Your task to perform on an android device: Go to internet settings Image 0: 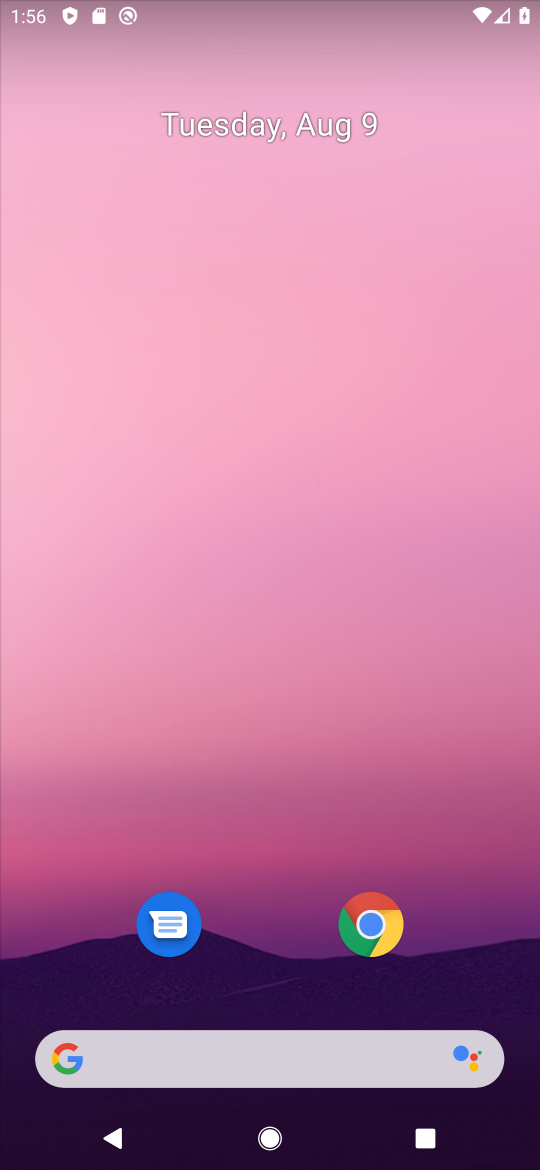
Step 0: drag from (496, 1101) to (329, 168)
Your task to perform on an android device: Go to internet settings Image 1: 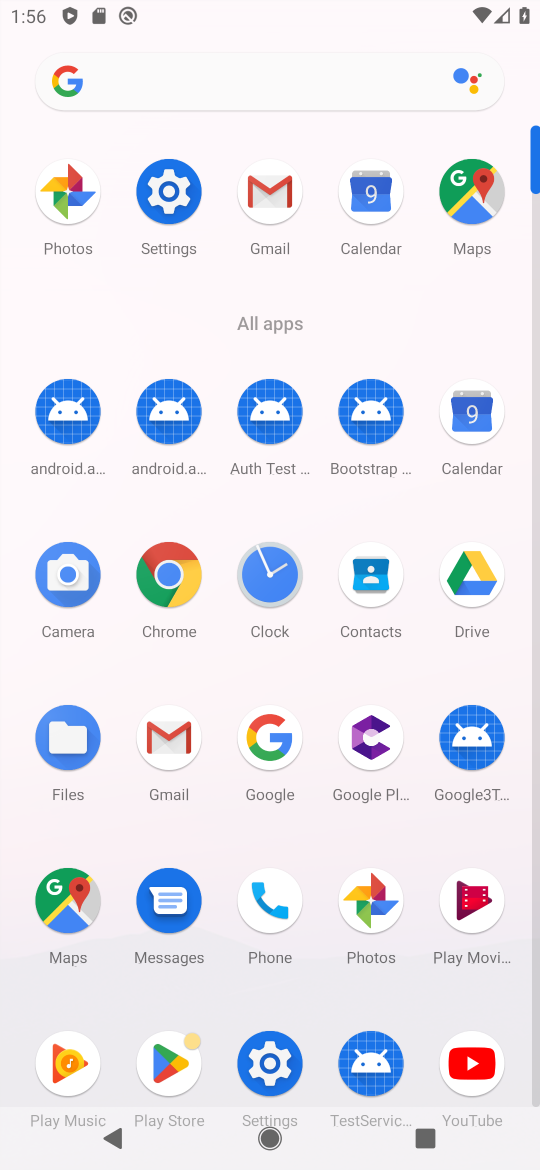
Step 1: click (287, 1068)
Your task to perform on an android device: Go to internet settings Image 2: 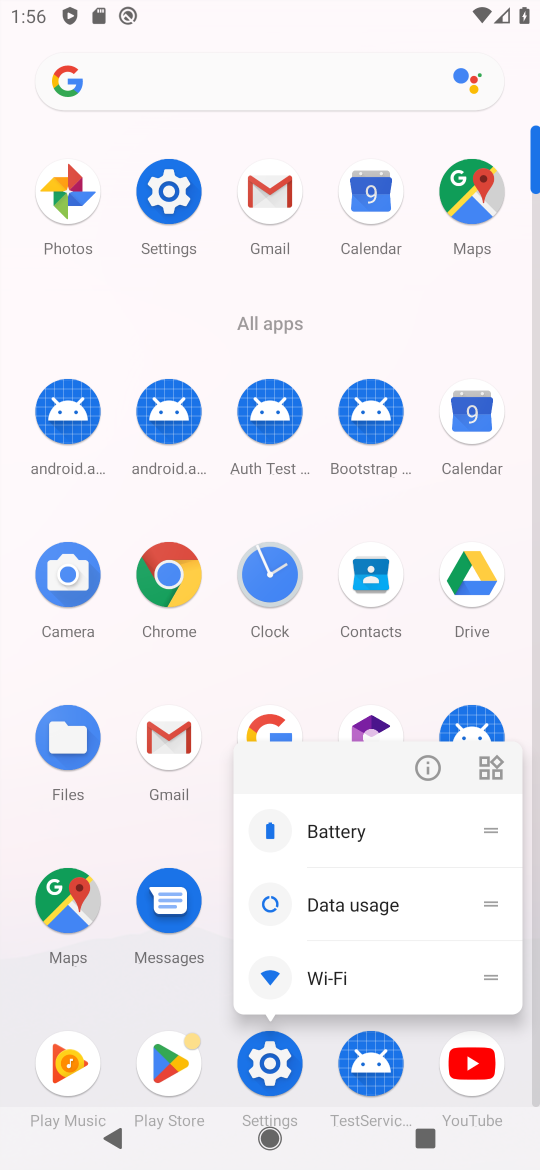
Step 2: click (167, 213)
Your task to perform on an android device: Go to internet settings Image 3: 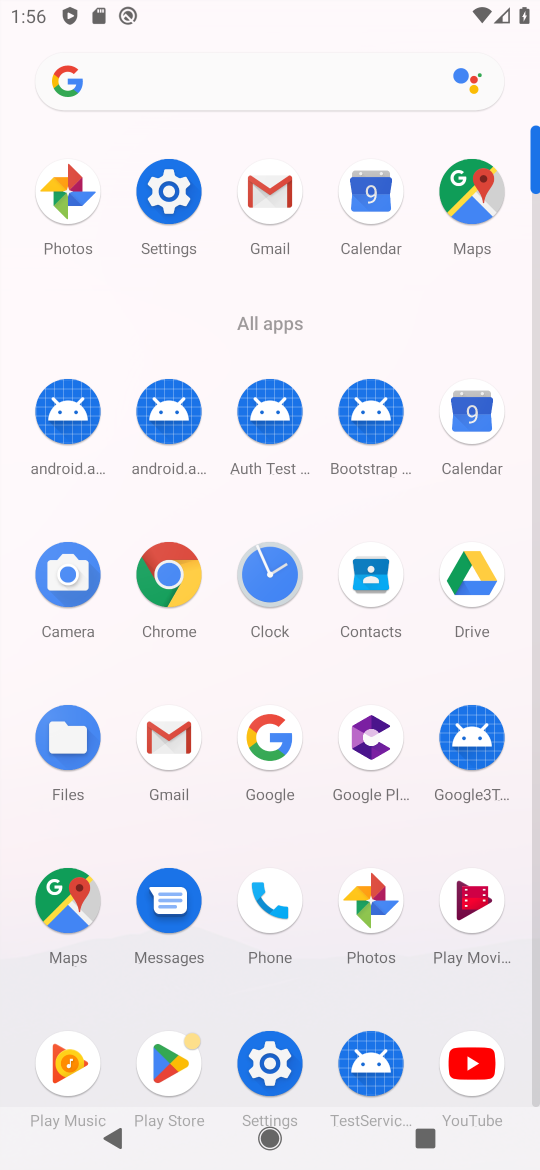
Step 3: click (165, 200)
Your task to perform on an android device: Go to internet settings Image 4: 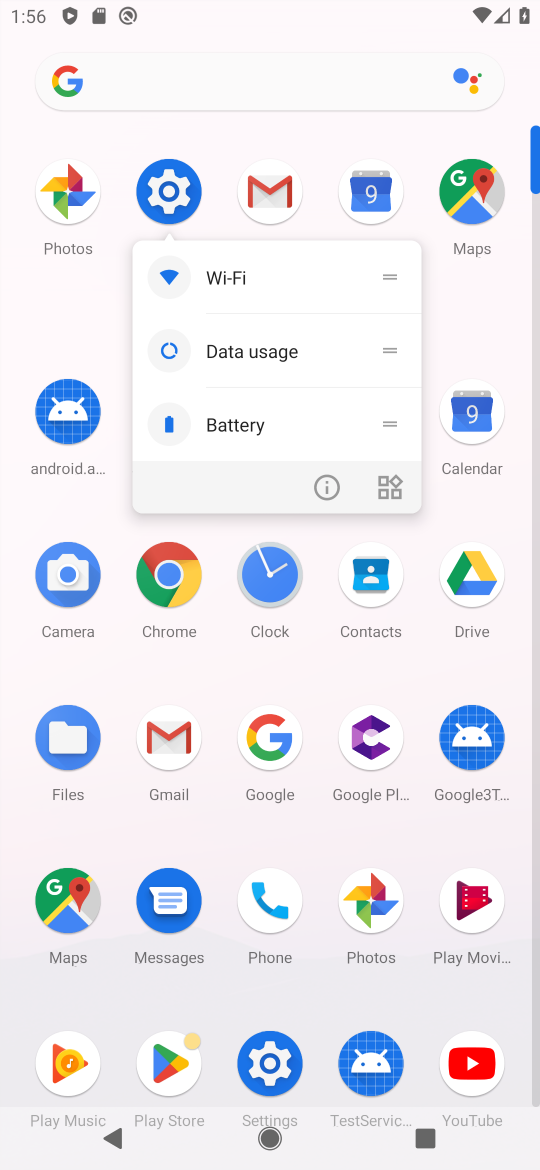
Step 4: click (160, 203)
Your task to perform on an android device: Go to internet settings Image 5: 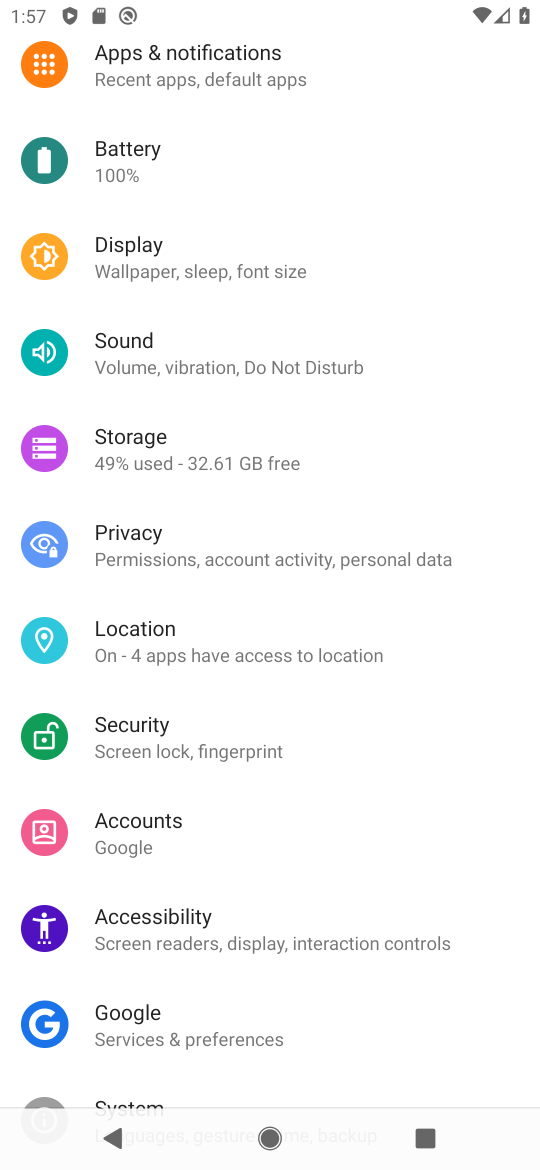
Step 5: drag from (287, 169) to (285, 971)
Your task to perform on an android device: Go to internet settings Image 6: 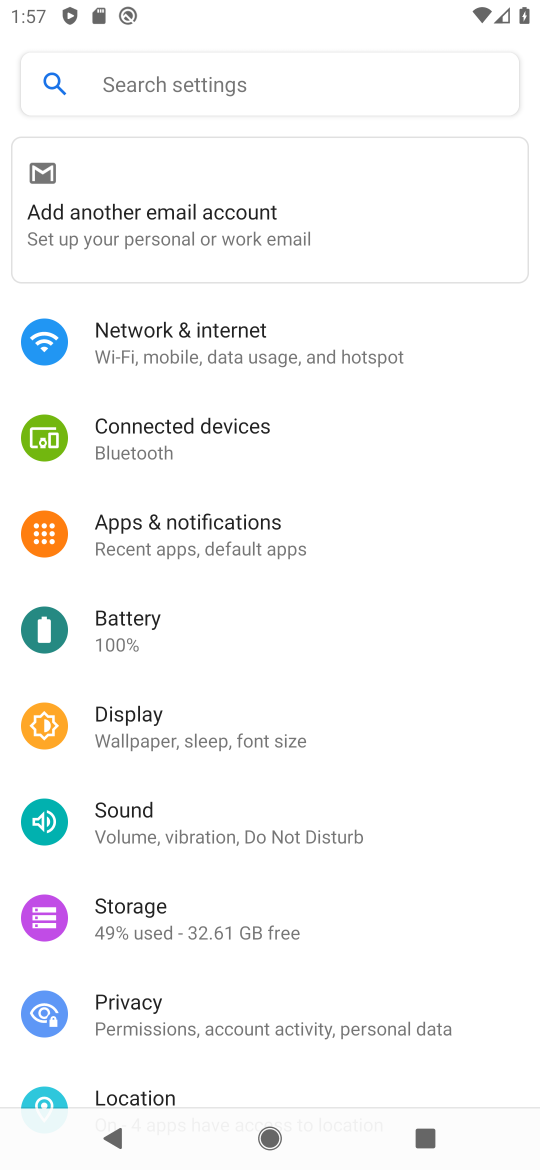
Step 6: click (170, 319)
Your task to perform on an android device: Go to internet settings Image 7: 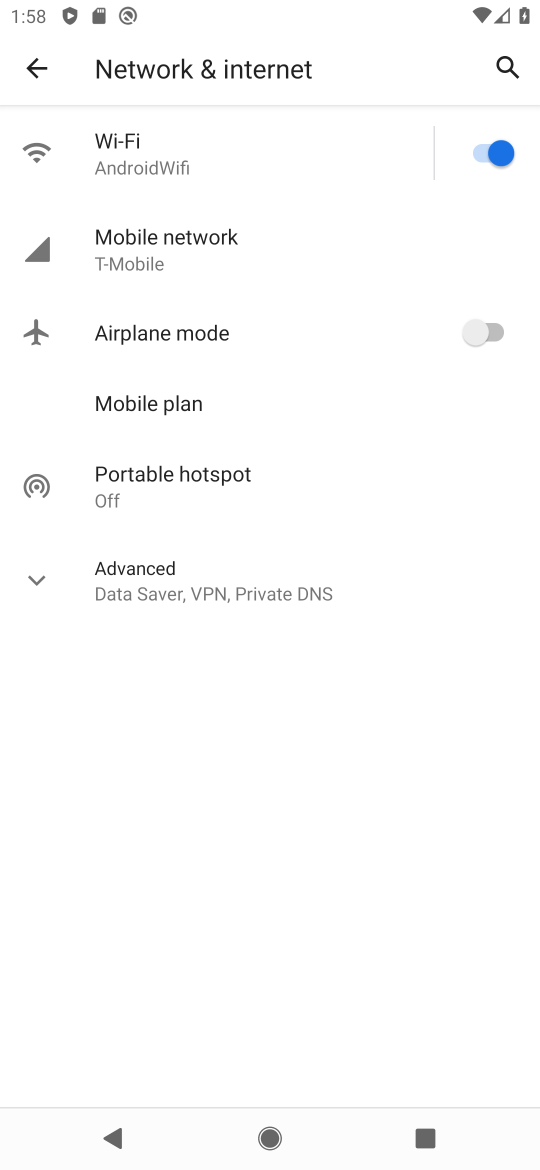
Step 7: task complete